Your task to perform on an android device: Open location settings Image 0: 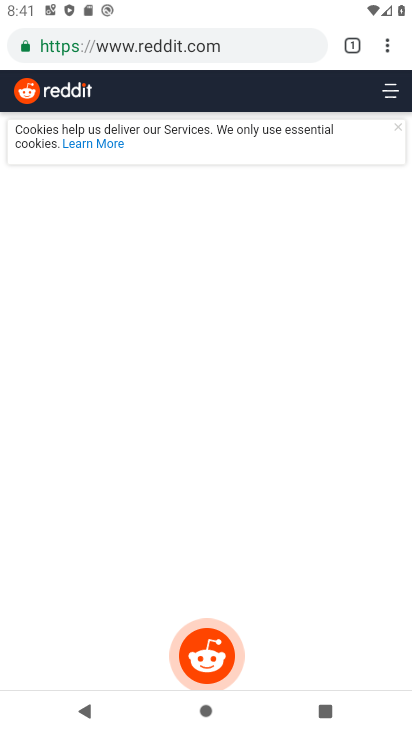
Step 0: press home button
Your task to perform on an android device: Open location settings Image 1: 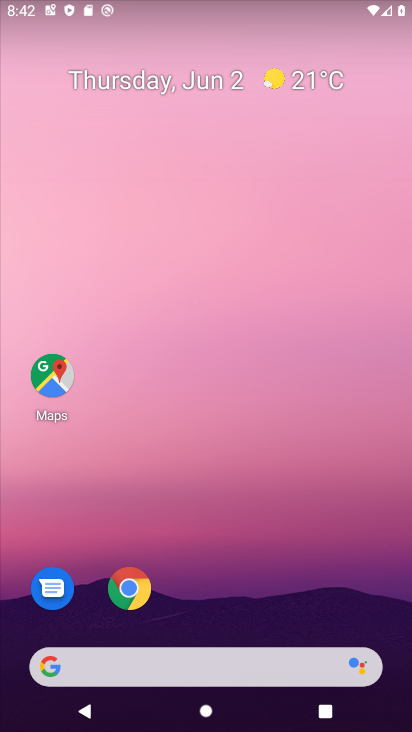
Step 1: drag from (171, 657) to (99, 93)
Your task to perform on an android device: Open location settings Image 2: 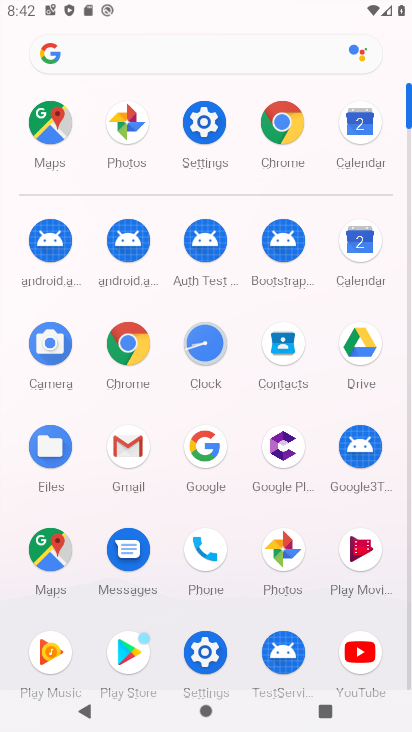
Step 2: click (201, 121)
Your task to perform on an android device: Open location settings Image 3: 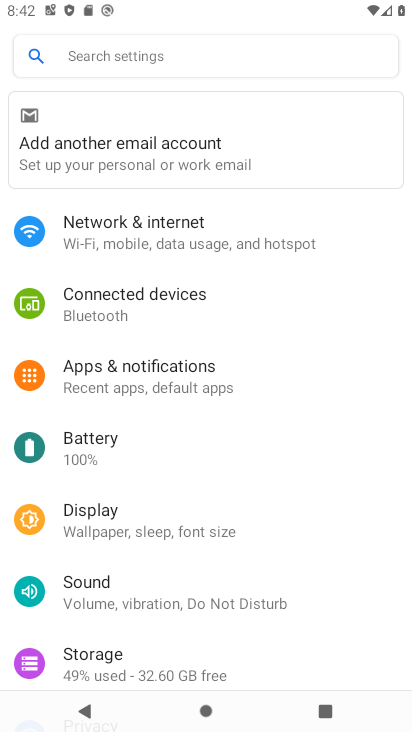
Step 3: drag from (134, 607) to (83, 208)
Your task to perform on an android device: Open location settings Image 4: 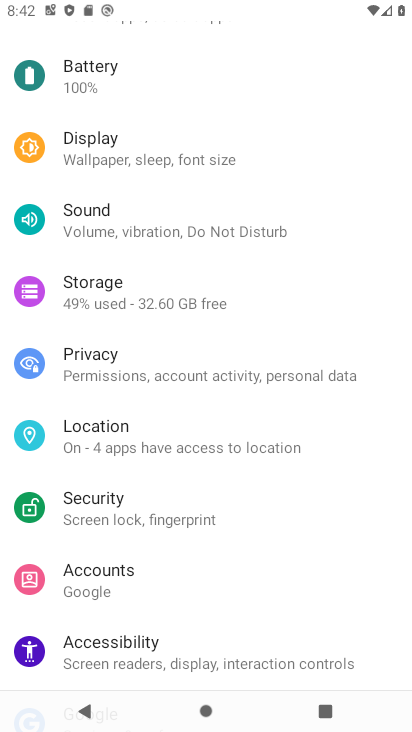
Step 4: click (116, 436)
Your task to perform on an android device: Open location settings Image 5: 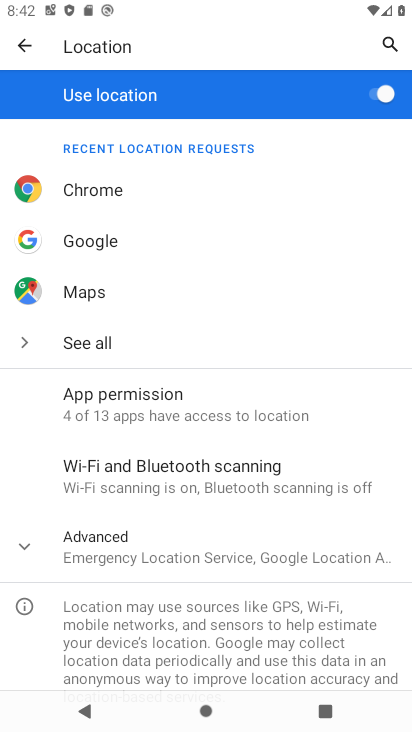
Step 5: task complete